Your task to perform on an android device: Go to Wikipedia Image 0: 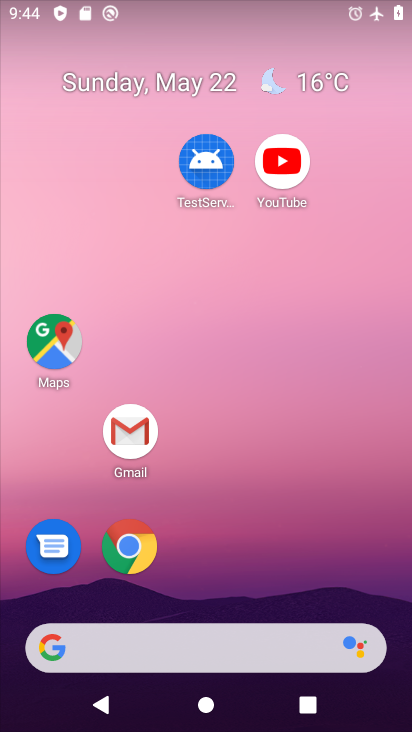
Step 0: drag from (259, 601) to (239, 297)
Your task to perform on an android device: Go to Wikipedia Image 1: 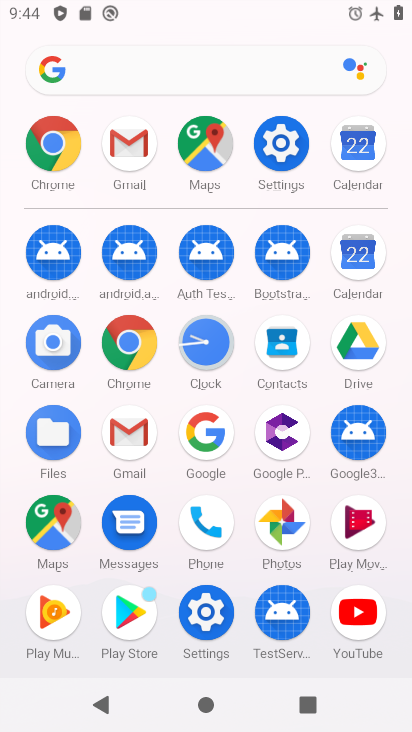
Step 1: click (46, 138)
Your task to perform on an android device: Go to Wikipedia Image 2: 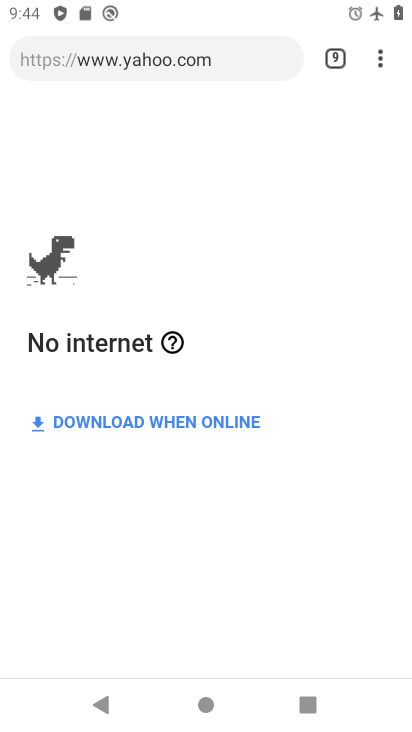
Step 2: task complete